Your task to perform on an android device: Go to battery settings Image 0: 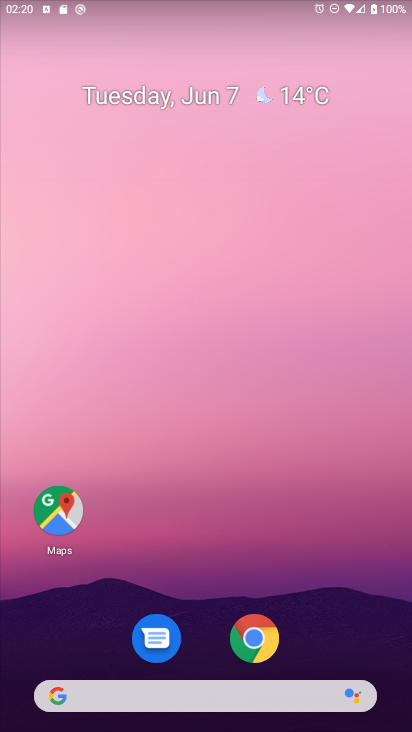
Step 0: drag from (275, 725) to (160, 177)
Your task to perform on an android device: Go to battery settings Image 1: 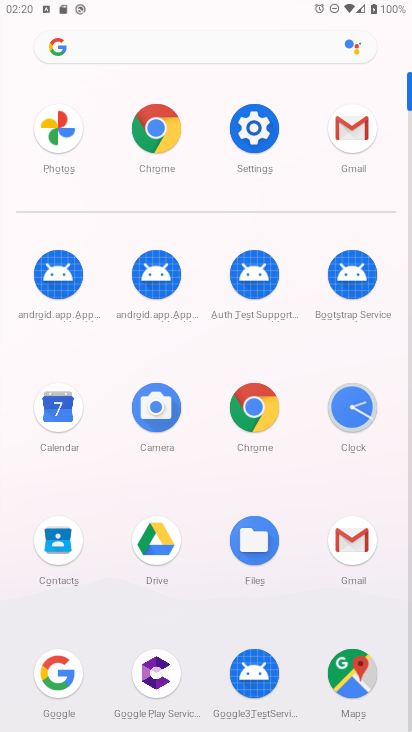
Step 1: click (244, 142)
Your task to perform on an android device: Go to battery settings Image 2: 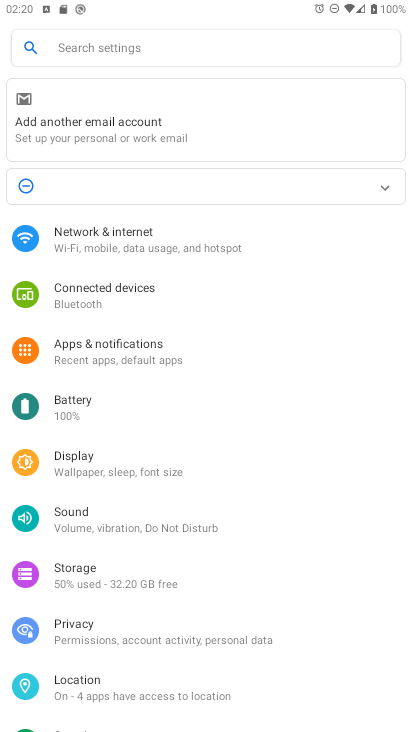
Step 2: click (148, 404)
Your task to perform on an android device: Go to battery settings Image 3: 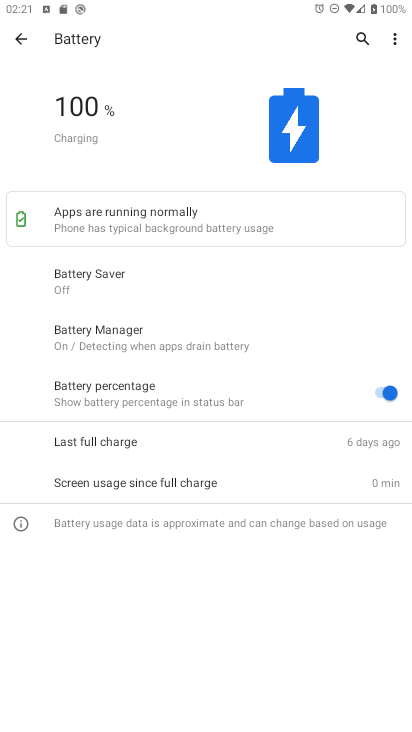
Step 3: task complete